Your task to perform on an android device: Clear the cart on ebay.com. Search for dell xps on ebay.com, select the first entry, and add it to the cart. Image 0: 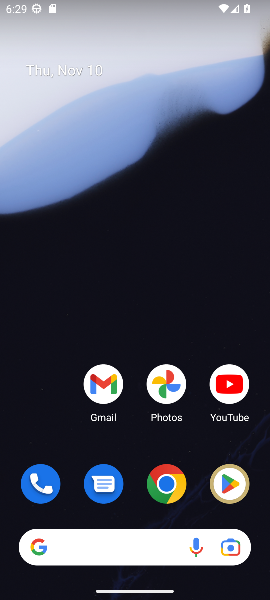
Step 0: click (171, 487)
Your task to perform on an android device: Clear the cart on ebay.com. Search for dell xps on ebay.com, select the first entry, and add it to the cart. Image 1: 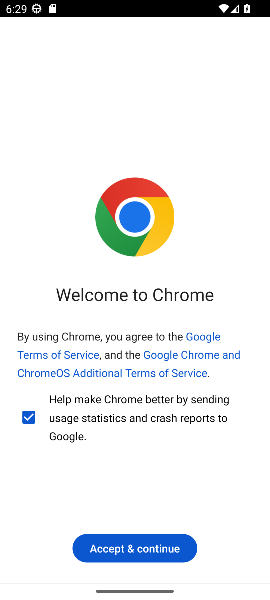
Step 1: click (105, 556)
Your task to perform on an android device: Clear the cart on ebay.com. Search for dell xps on ebay.com, select the first entry, and add it to the cart. Image 2: 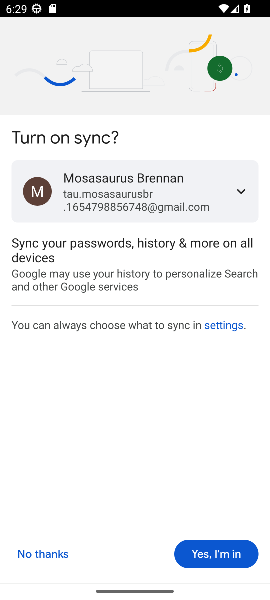
Step 2: click (220, 564)
Your task to perform on an android device: Clear the cart on ebay.com. Search for dell xps on ebay.com, select the first entry, and add it to the cart. Image 3: 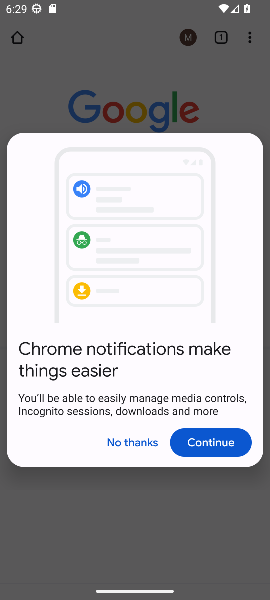
Step 3: click (137, 445)
Your task to perform on an android device: Clear the cart on ebay.com. Search for dell xps on ebay.com, select the first entry, and add it to the cart. Image 4: 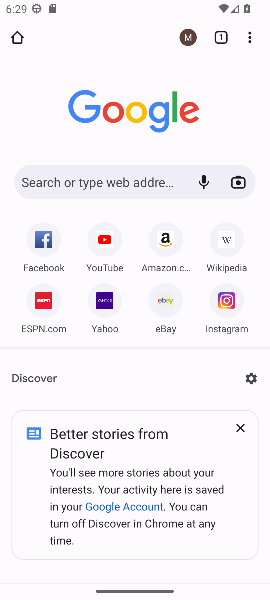
Step 4: click (167, 309)
Your task to perform on an android device: Clear the cart on ebay.com. Search for dell xps on ebay.com, select the first entry, and add it to the cart. Image 5: 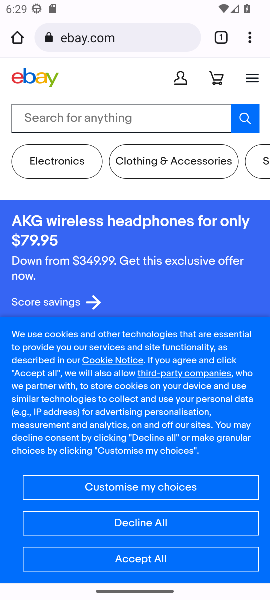
Step 5: click (218, 75)
Your task to perform on an android device: Clear the cart on ebay.com. Search for dell xps on ebay.com, select the first entry, and add it to the cart. Image 6: 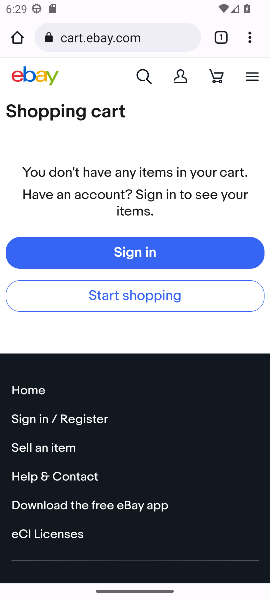
Step 6: click (139, 81)
Your task to perform on an android device: Clear the cart on ebay.com. Search for dell xps on ebay.com, select the first entry, and add it to the cart. Image 7: 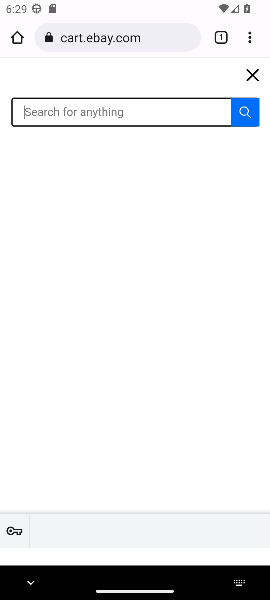
Step 7: type "dell xps"
Your task to perform on an android device: Clear the cart on ebay.com. Search for dell xps on ebay.com, select the first entry, and add it to the cart. Image 8: 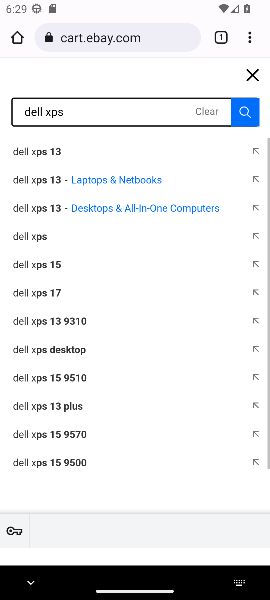
Step 8: click (38, 241)
Your task to perform on an android device: Clear the cart on ebay.com. Search for dell xps on ebay.com, select the first entry, and add it to the cart. Image 9: 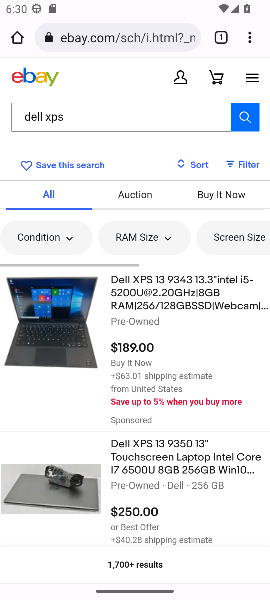
Step 9: click (66, 324)
Your task to perform on an android device: Clear the cart on ebay.com. Search for dell xps on ebay.com, select the first entry, and add it to the cart. Image 10: 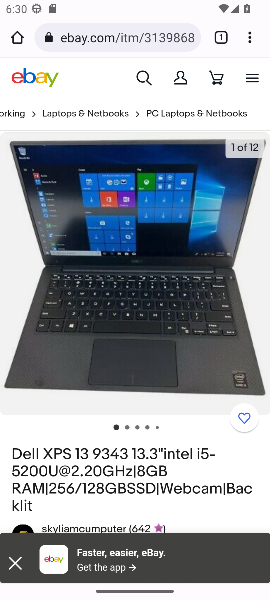
Step 10: drag from (110, 406) to (116, 267)
Your task to perform on an android device: Clear the cart on ebay.com. Search for dell xps on ebay.com, select the first entry, and add it to the cart. Image 11: 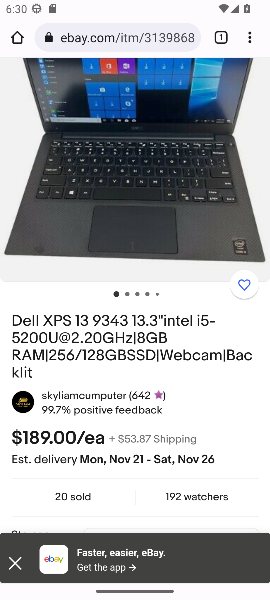
Step 11: drag from (122, 425) to (122, 208)
Your task to perform on an android device: Clear the cart on ebay.com. Search for dell xps on ebay.com, select the first entry, and add it to the cart. Image 12: 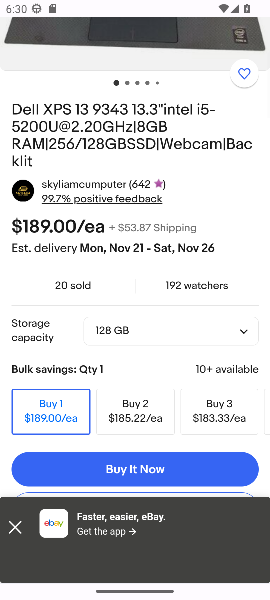
Step 12: drag from (118, 370) to (127, 201)
Your task to perform on an android device: Clear the cart on ebay.com. Search for dell xps on ebay.com, select the first entry, and add it to the cart. Image 13: 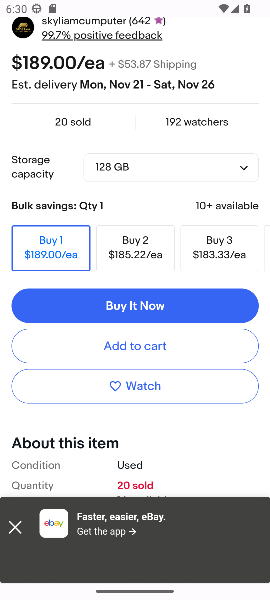
Step 13: click (122, 343)
Your task to perform on an android device: Clear the cart on ebay.com. Search for dell xps on ebay.com, select the first entry, and add it to the cart. Image 14: 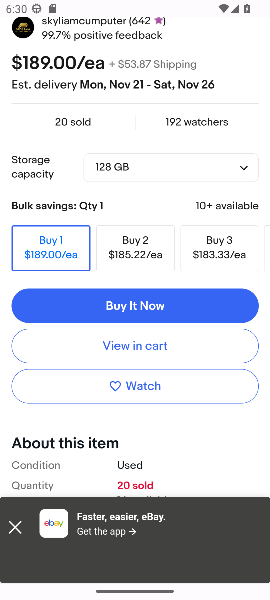
Step 14: task complete